Your task to perform on an android device: Go to internet settings Image 0: 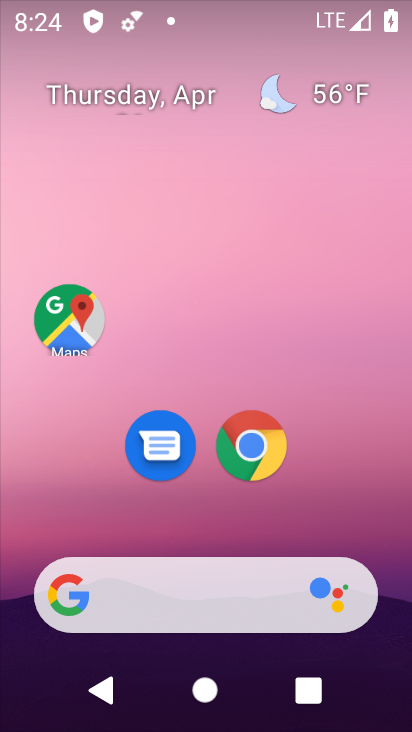
Step 0: drag from (381, 582) to (315, 31)
Your task to perform on an android device: Go to internet settings Image 1: 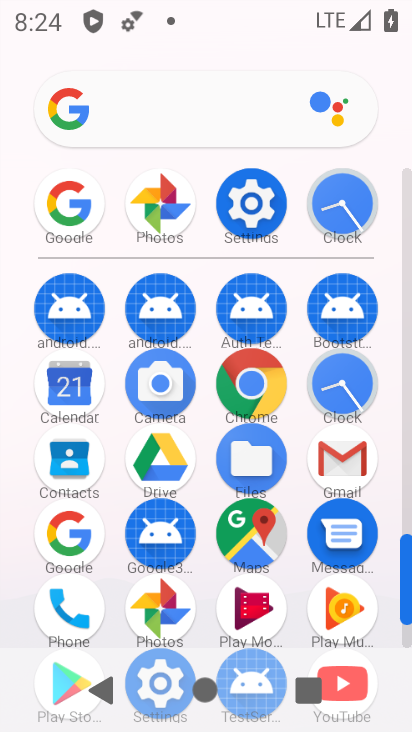
Step 1: click (245, 210)
Your task to perform on an android device: Go to internet settings Image 2: 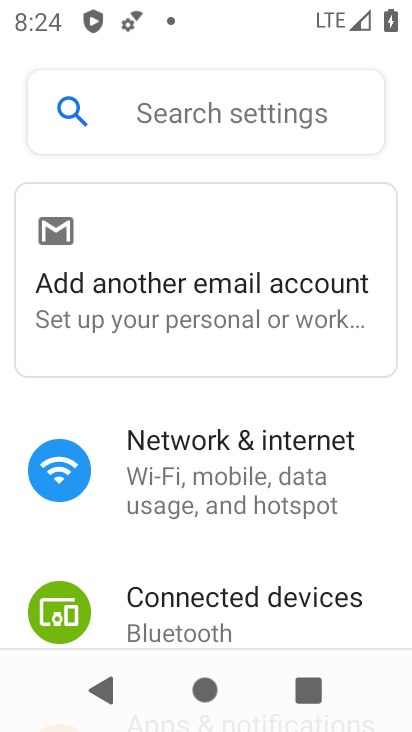
Step 2: click (204, 441)
Your task to perform on an android device: Go to internet settings Image 3: 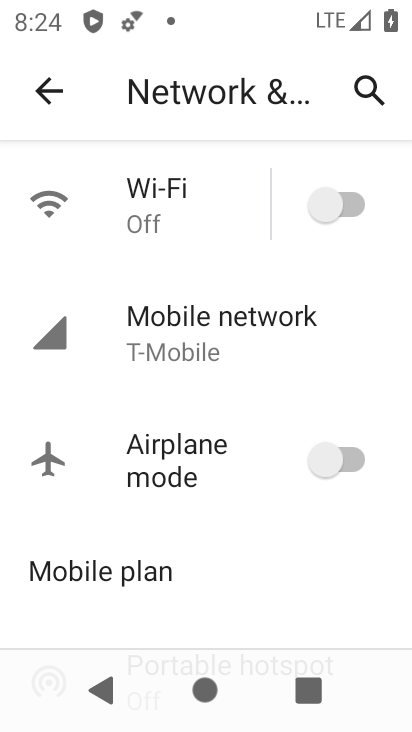
Step 3: task complete